Your task to perform on an android device: Go to wifi settings Image 0: 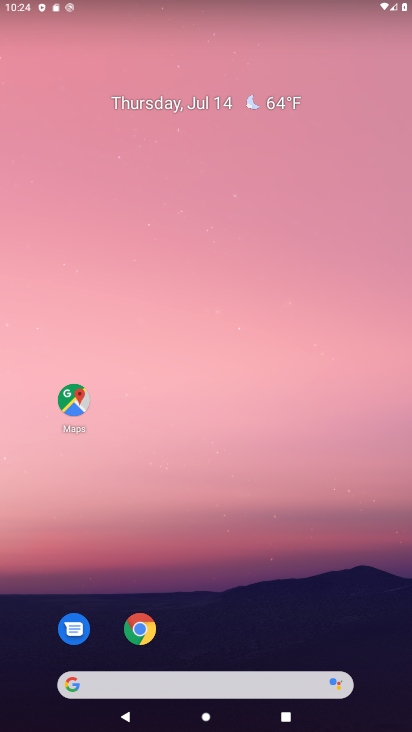
Step 0: drag from (173, 674) to (182, 291)
Your task to perform on an android device: Go to wifi settings Image 1: 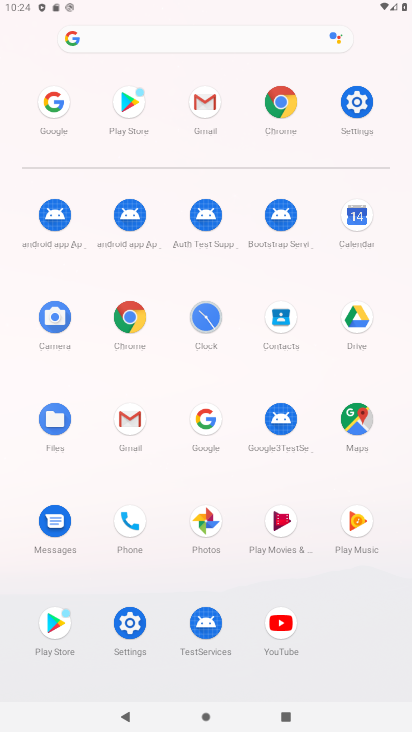
Step 1: click (366, 112)
Your task to perform on an android device: Go to wifi settings Image 2: 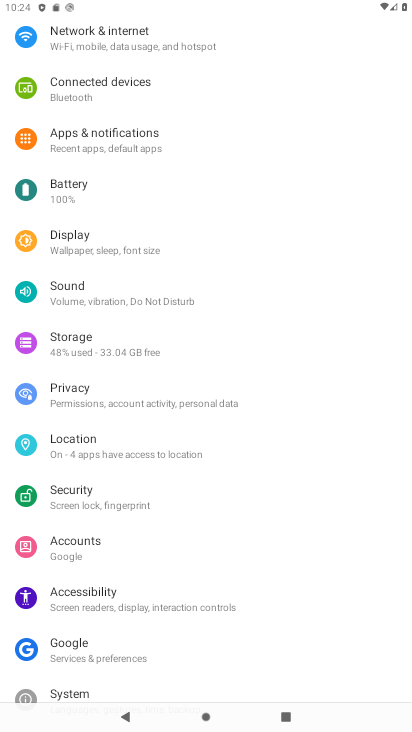
Step 2: drag from (133, 39) to (74, 526)
Your task to perform on an android device: Go to wifi settings Image 3: 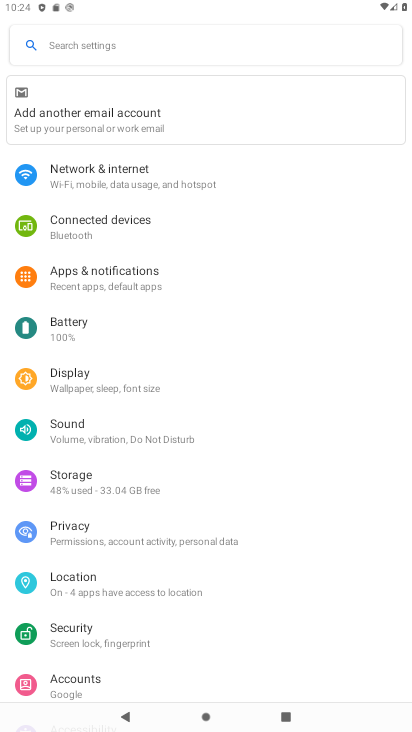
Step 3: click (90, 181)
Your task to perform on an android device: Go to wifi settings Image 4: 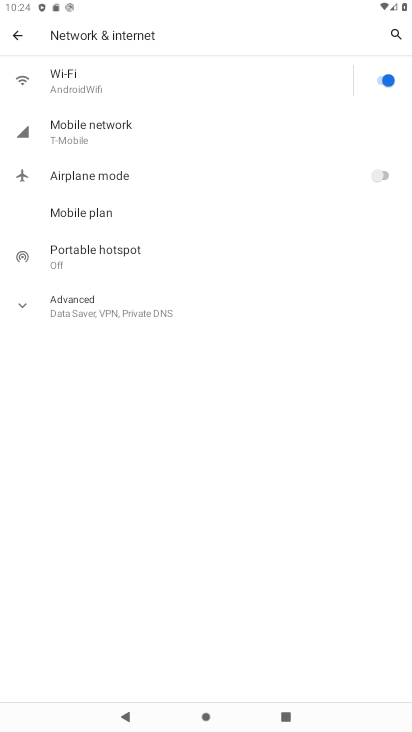
Step 4: click (81, 83)
Your task to perform on an android device: Go to wifi settings Image 5: 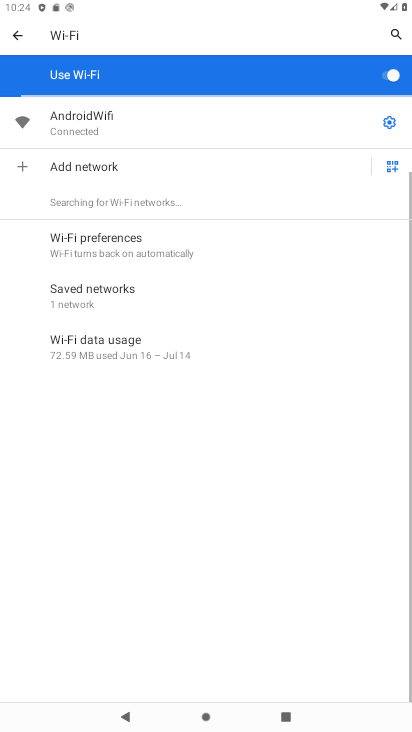
Step 5: click (385, 120)
Your task to perform on an android device: Go to wifi settings Image 6: 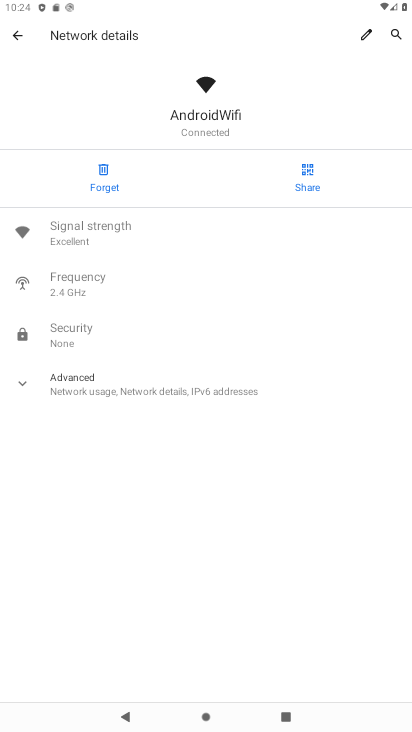
Step 6: task complete